Your task to perform on an android device: turn notification dots on Image 0: 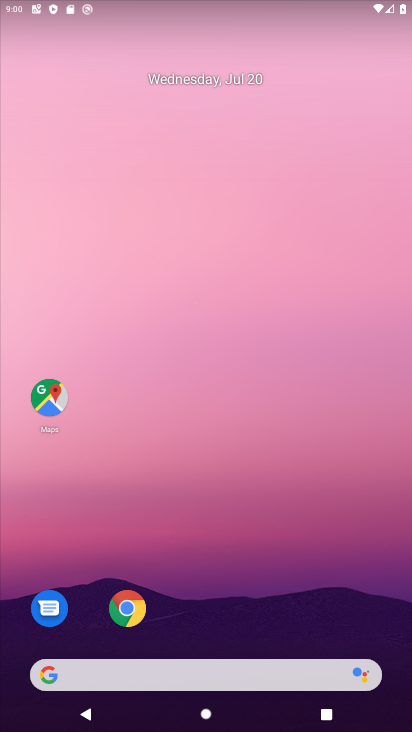
Step 0: drag from (143, 717) to (38, 63)
Your task to perform on an android device: turn notification dots on Image 1: 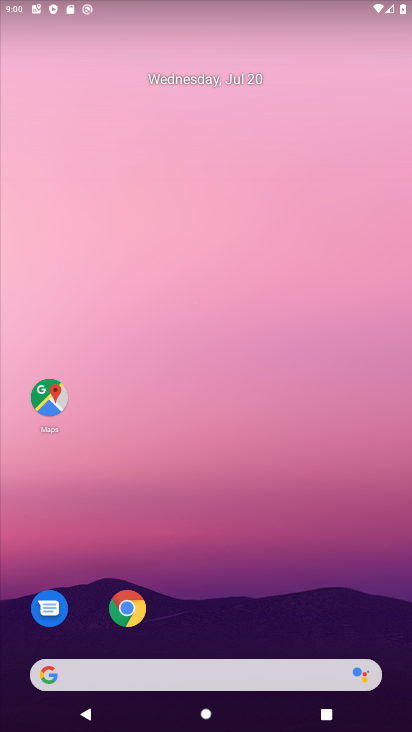
Step 1: drag from (248, 706) to (149, 117)
Your task to perform on an android device: turn notification dots on Image 2: 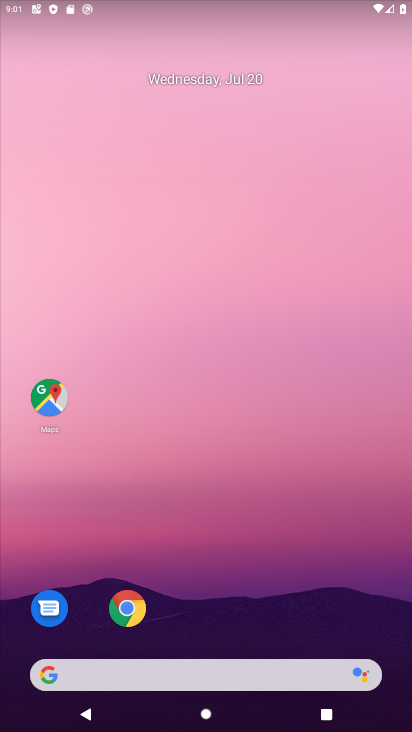
Step 2: drag from (250, 723) to (271, 4)
Your task to perform on an android device: turn notification dots on Image 3: 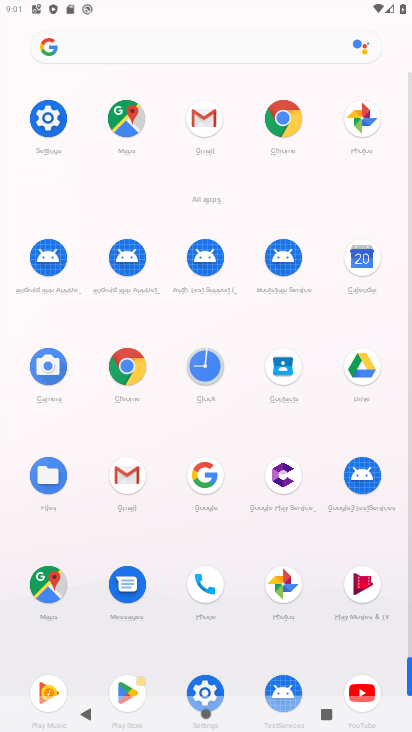
Step 3: click (64, 106)
Your task to perform on an android device: turn notification dots on Image 4: 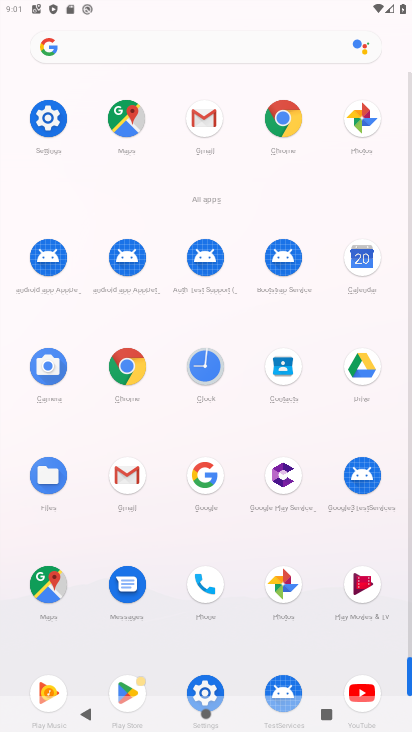
Step 4: click (64, 106)
Your task to perform on an android device: turn notification dots on Image 5: 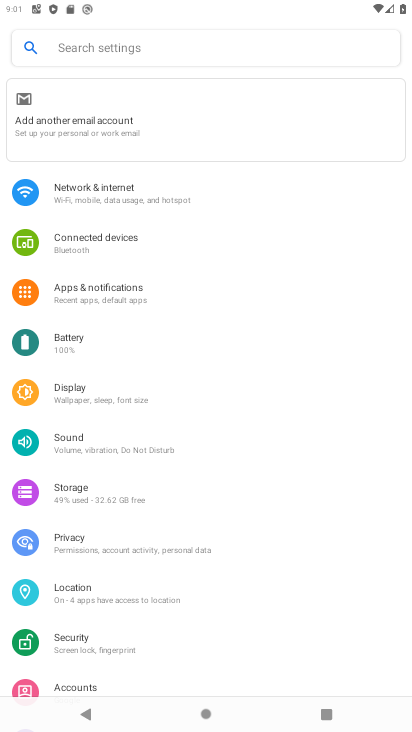
Step 5: click (99, 287)
Your task to perform on an android device: turn notification dots on Image 6: 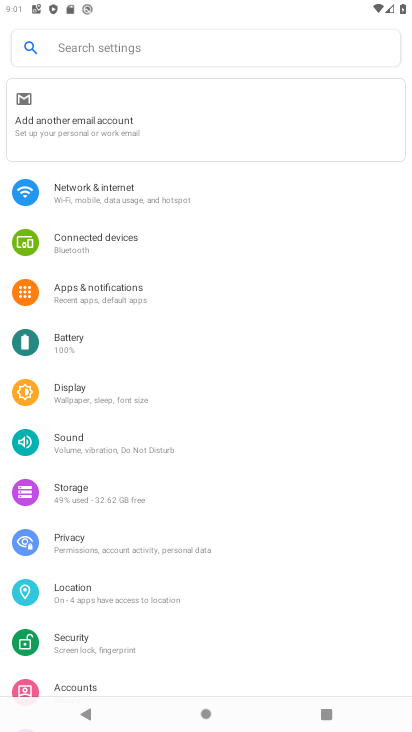
Step 6: click (99, 287)
Your task to perform on an android device: turn notification dots on Image 7: 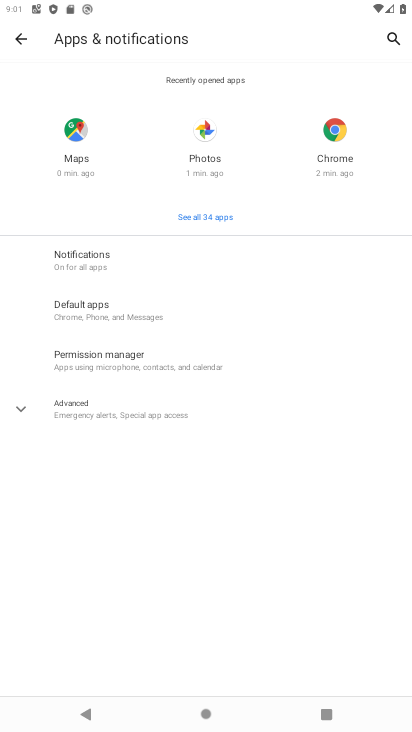
Step 7: click (197, 270)
Your task to perform on an android device: turn notification dots on Image 8: 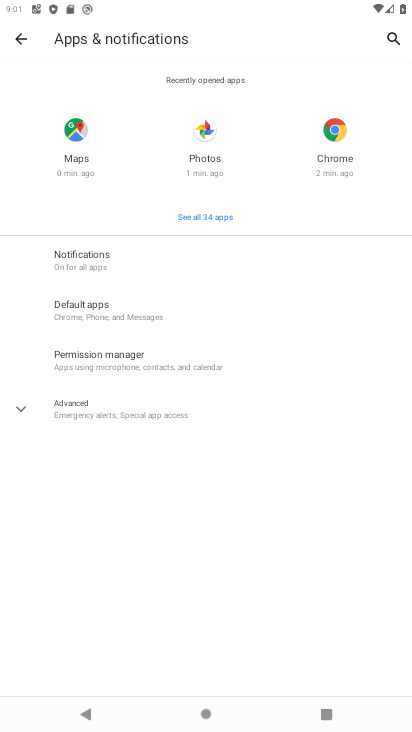
Step 8: click (197, 270)
Your task to perform on an android device: turn notification dots on Image 9: 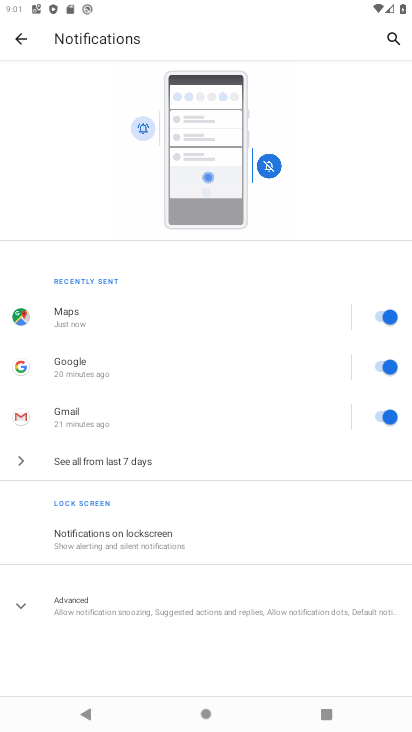
Step 9: click (162, 539)
Your task to perform on an android device: turn notification dots on Image 10: 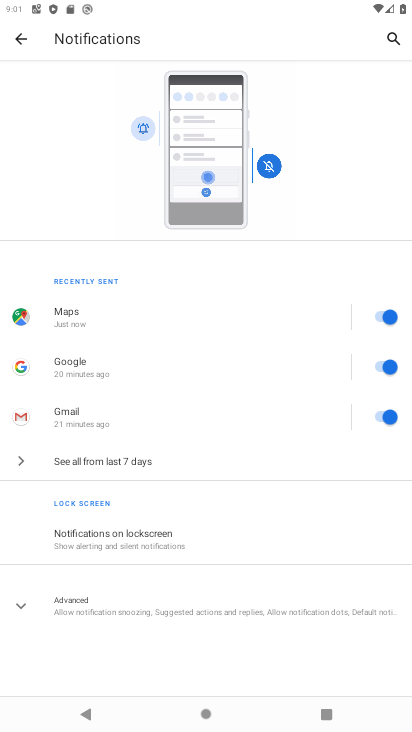
Step 10: click (162, 539)
Your task to perform on an android device: turn notification dots on Image 11: 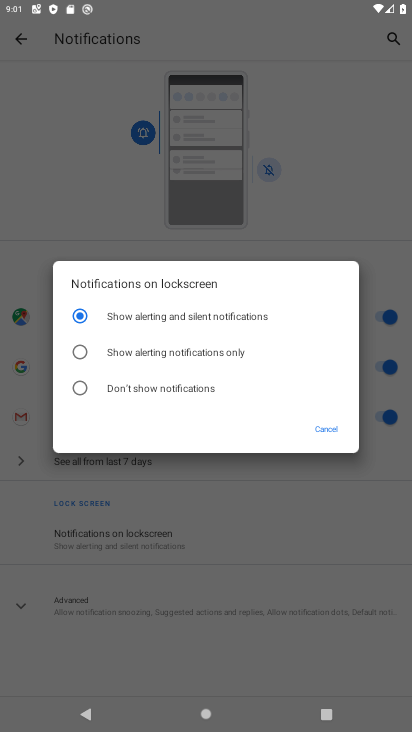
Step 11: click (357, 203)
Your task to perform on an android device: turn notification dots on Image 12: 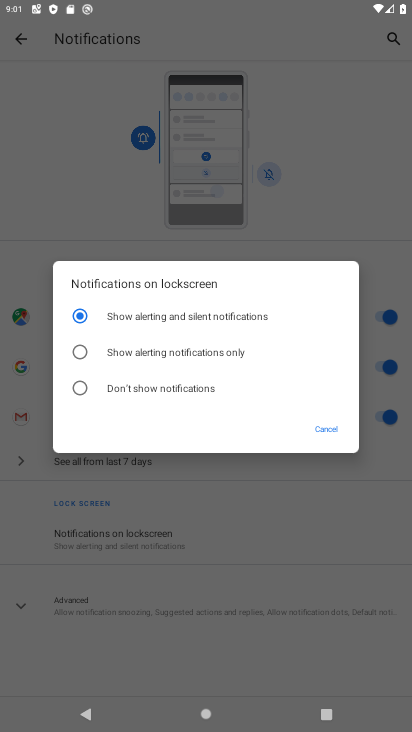
Step 12: click (325, 435)
Your task to perform on an android device: turn notification dots on Image 13: 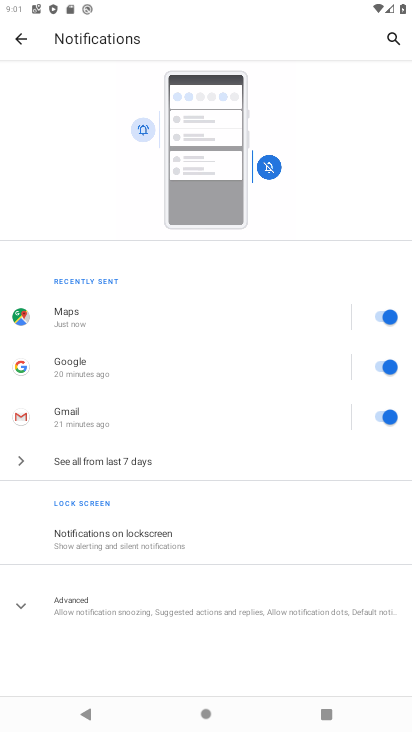
Step 13: click (60, 607)
Your task to perform on an android device: turn notification dots on Image 14: 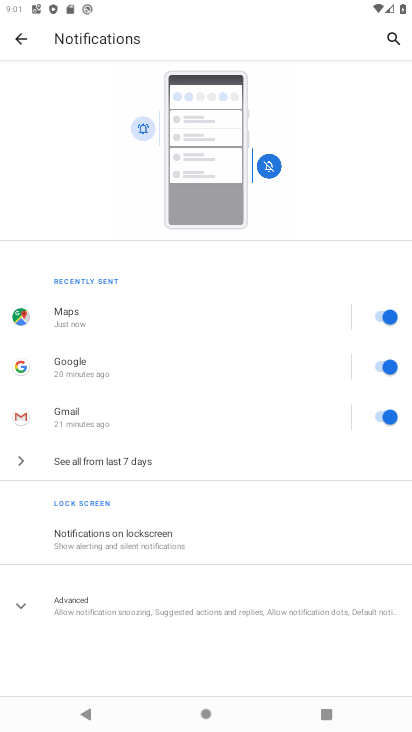
Step 14: click (60, 607)
Your task to perform on an android device: turn notification dots on Image 15: 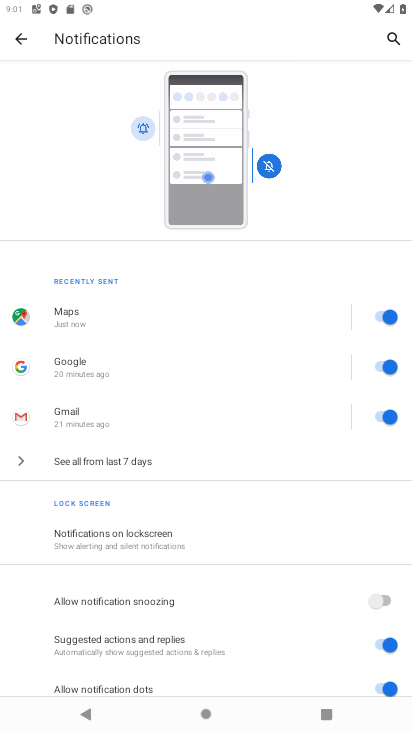
Step 15: task complete